Your task to perform on an android device: Go to settings Image 0: 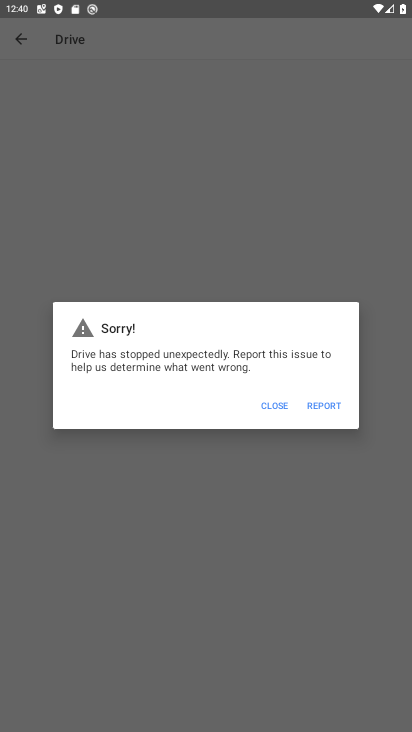
Step 0: press home button
Your task to perform on an android device: Go to settings Image 1: 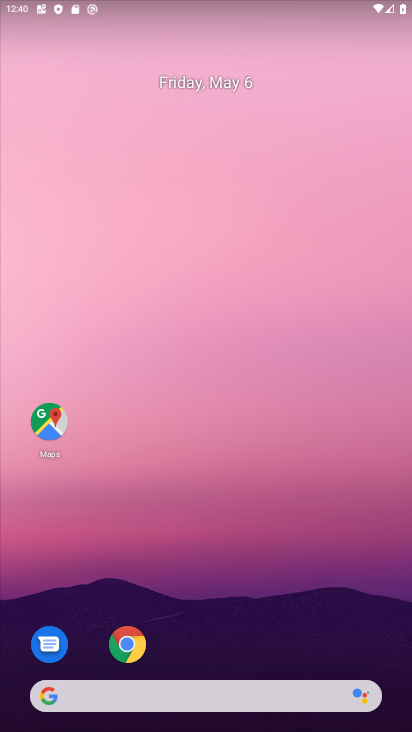
Step 1: drag from (290, 725) to (224, 142)
Your task to perform on an android device: Go to settings Image 2: 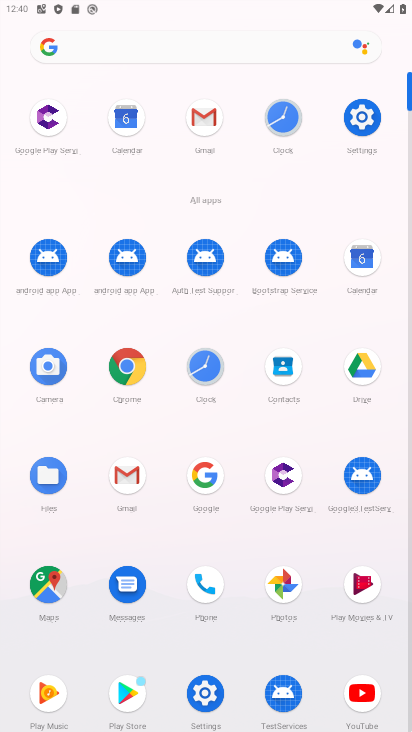
Step 2: click (361, 122)
Your task to perform on an android device: Go to settings Image 3: 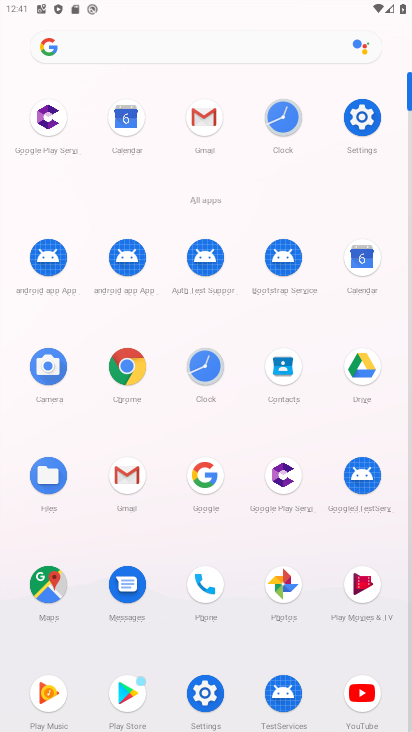
Step 3: click (358, 120)
Your task to perform on an android device: Go to settings Image 4: 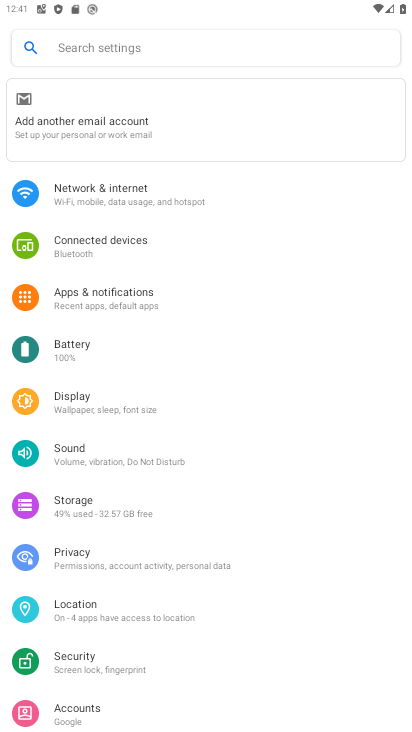
Step 4: task complete